Your task to perform on an android device: Do I have any events tomorrow? Image 0: 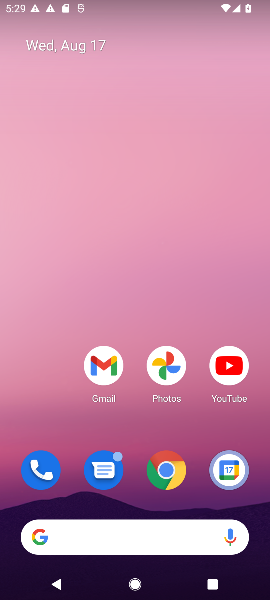
Step 0: drag from (133, 517) to (152, 115)
Your task to perform on an android device: Do I have any events tomorrow? Image 1: 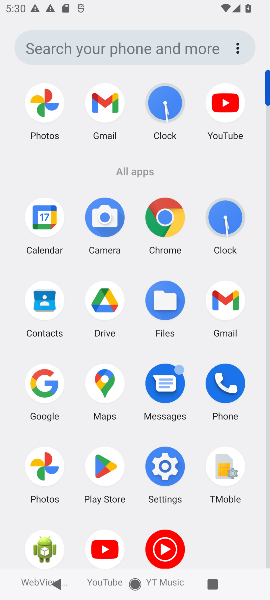
Step 1: click (37, 219)
Your task to perform on an android device: Do I have any events tomorrow? Image 2: 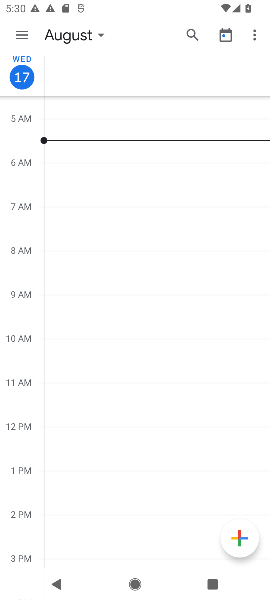
Step 2: click (27, 35)
Your task to perform on an android device: Do I have any events tomorrow? Image 3: 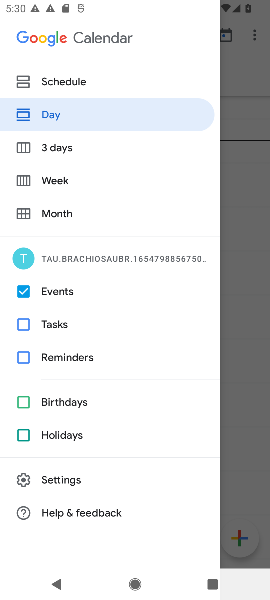
Step 3: click (68, 145)
Your task to perform on an android device: Do I have any events tomorrow? Image 4: 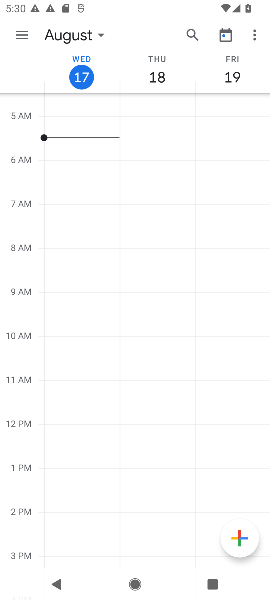
Step 4: task complete